Your task to perform on an android device: toggle translation in the chrome app Image 0: 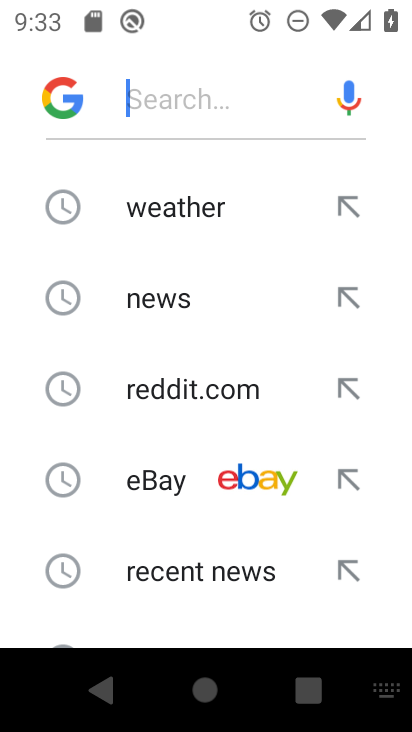
Step 0: press home button
Your task to perform on an android device: toggle translation in the chrome app Image 1: 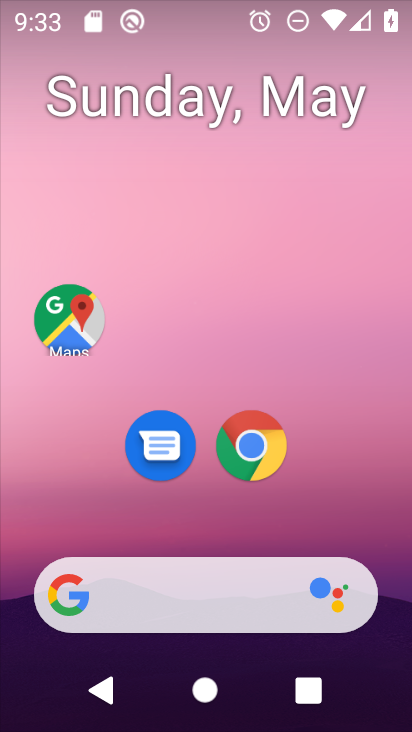
Step 1: drag from (263, 553) to (323, 221)
Your task to perform on an android device: toggle translation in the chrome app Image 2: 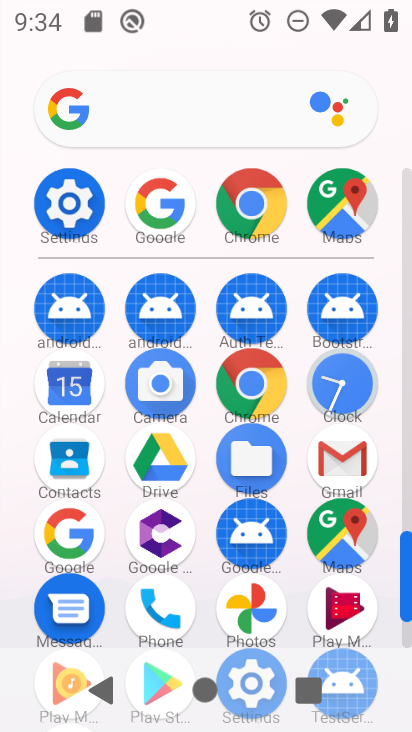
Step 2: click (266, 226)
Your task to perform on an android device: toggle translation in the chrome app Image 3: 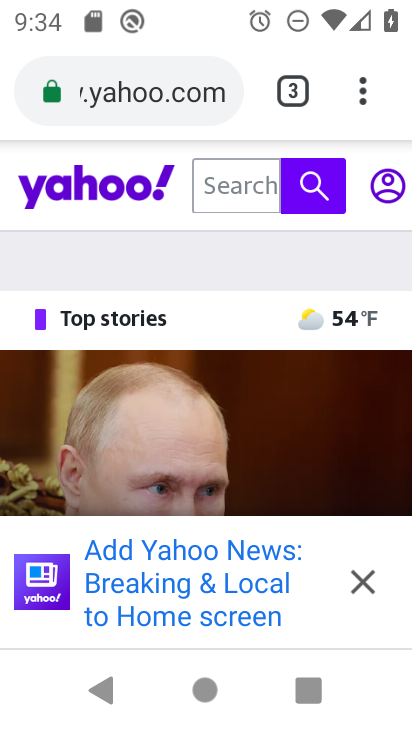
Step 3: press home button
Your task to perform on an android device: toggle translation in the chrome app Image 4: 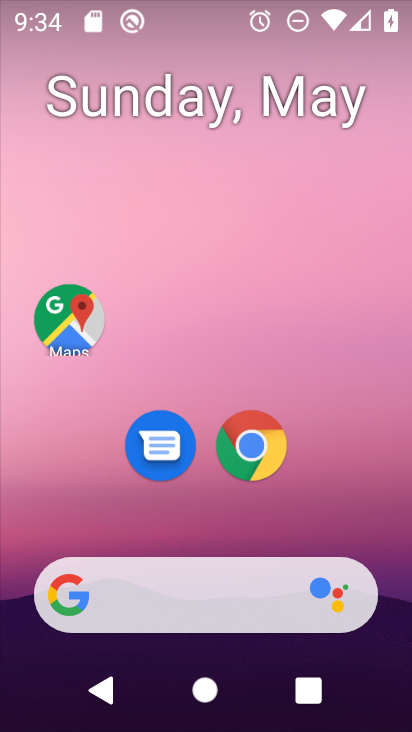
Step 4: click (243, 472)
Your task to perform on an android device: toggle translation in the chrome app Image 5: 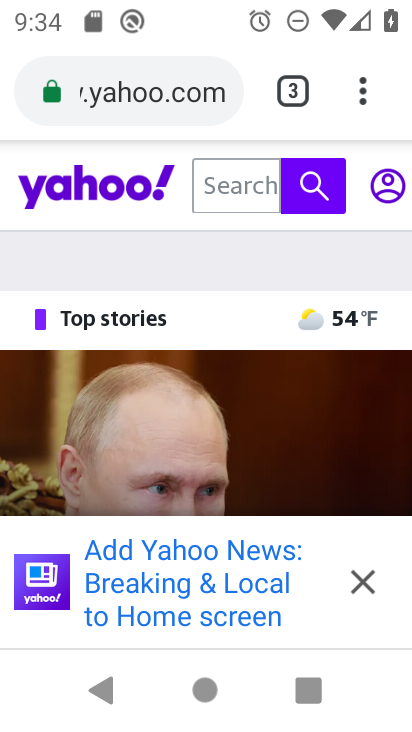
Step 5: click (368, 102)
Your task to perform on an android device: toggle translation in the chrome app Image 6: 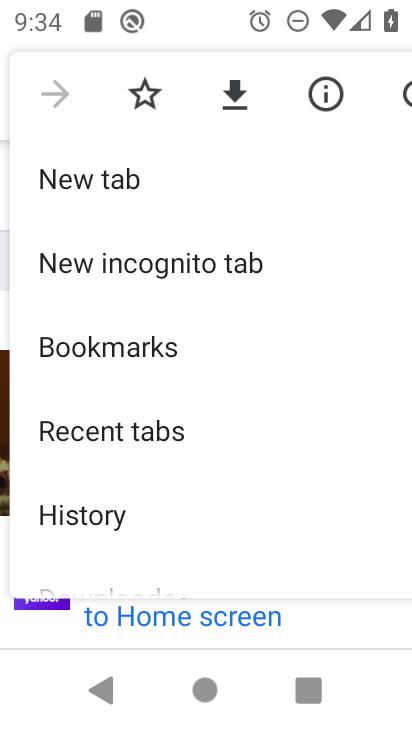
Step 6: drag from (187, 559) to (225, 284)
Your task to perform on an android device: toggle translation in the chrome app Image 7: 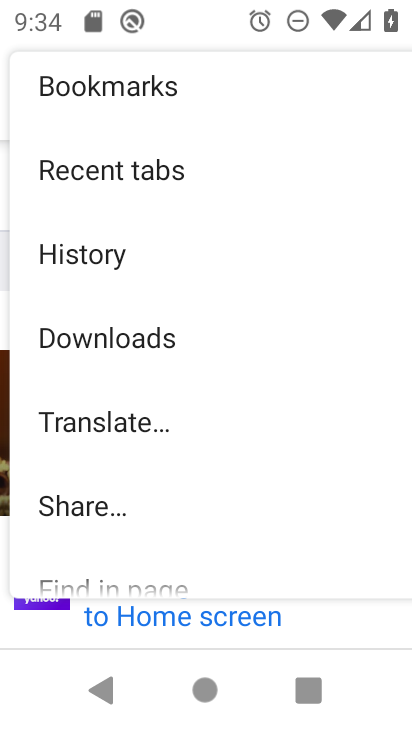
Step 7: drag from (227, 412) to (247, 292)
Your task to perform on an android device: toggle translation in the chrome app Image 8: 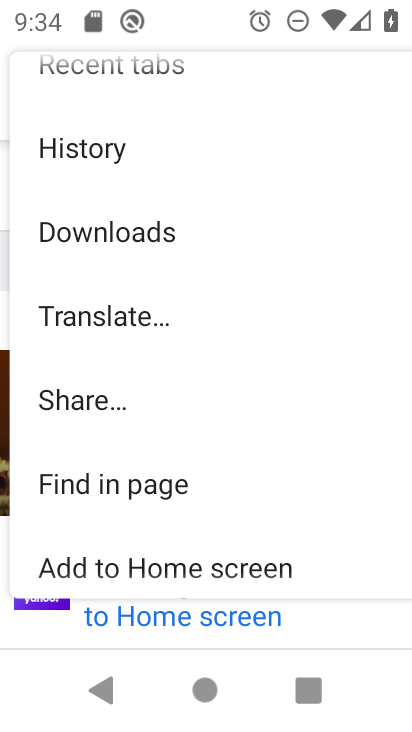
Step 8: click (148, 320)
Your task to perform on an android device: toggle translation in the chrome app Image 9: 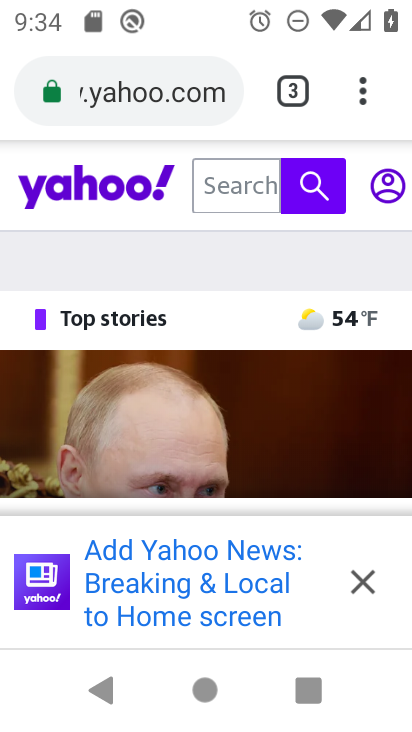
Step 9: click (359, 582)
Your task to perform on an android device: toggle translation in the chrome app Image 10: 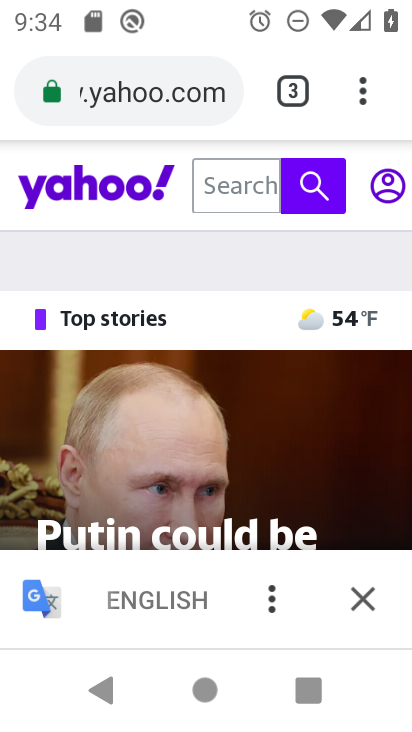
Step 10: click (276, 602)
Your task to perform on an android device: toggle translation in the chrome app Image 11: 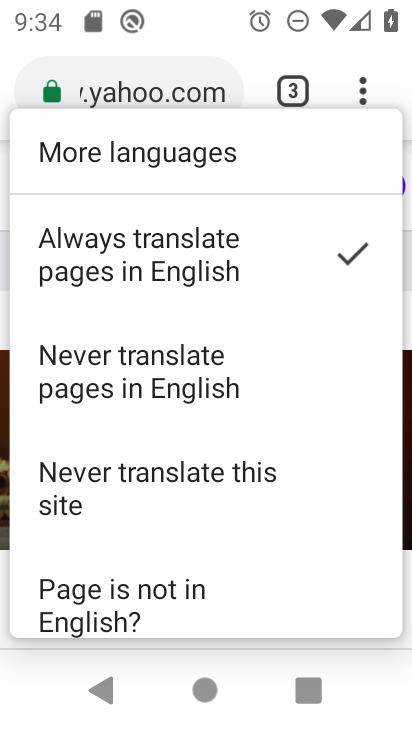
Step 11: click (246, 509)
Your task to perform on an android device: toggle translation in the chrome app Image 12: 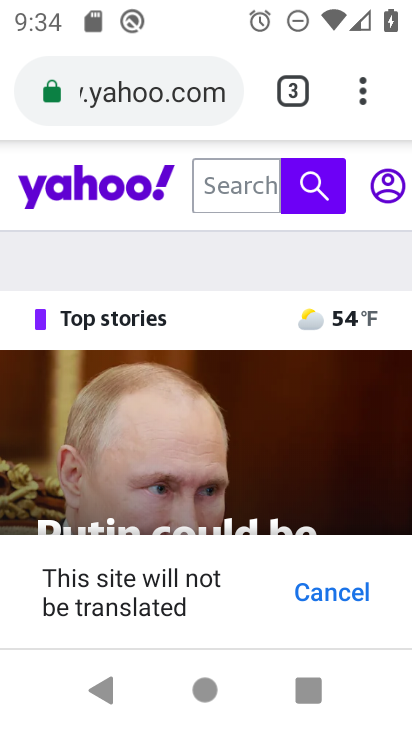
Step 12: task complete